Your task to perform on an android device: Open Youtube and go to "Your channel" Image 0: 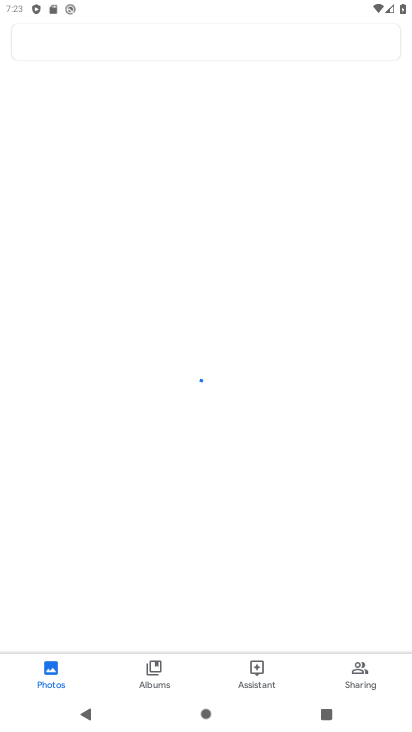
Step 0: press home button
Your task to perform on an android device: Open Youtube and go to "Your channel" Image 1: 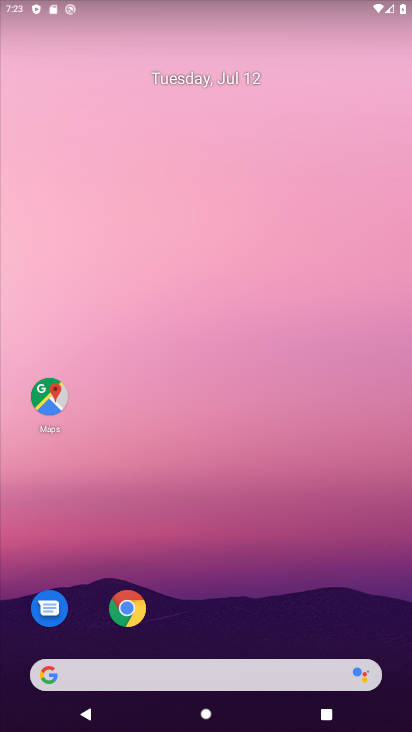
Step 1: drag from (205, 451) to (218, 103)
Your task to perform on an android device: Open Youtube and go to "Your channel" Image 2: 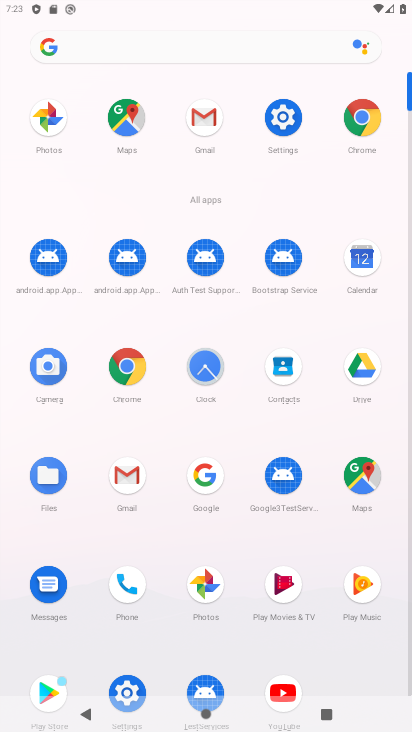
Step 2: click (276, 692)
Your task to perform on an android device: Open Youtube and go to "Your channel" Image 3: 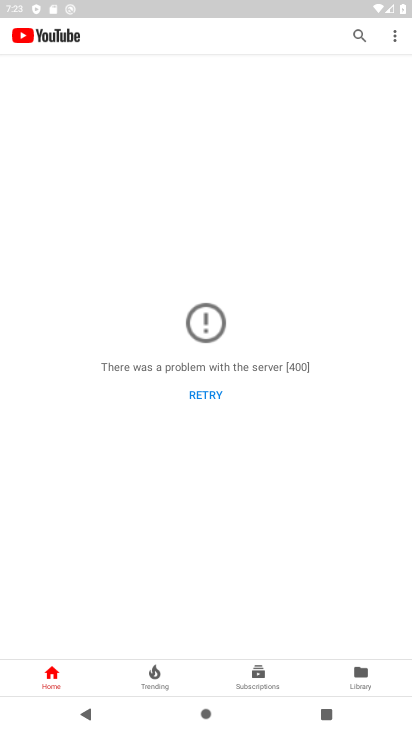
Step 3: click (362, 673)
Your task to perform on an android device: Open Youtube and go to "Your channel" Image 4: 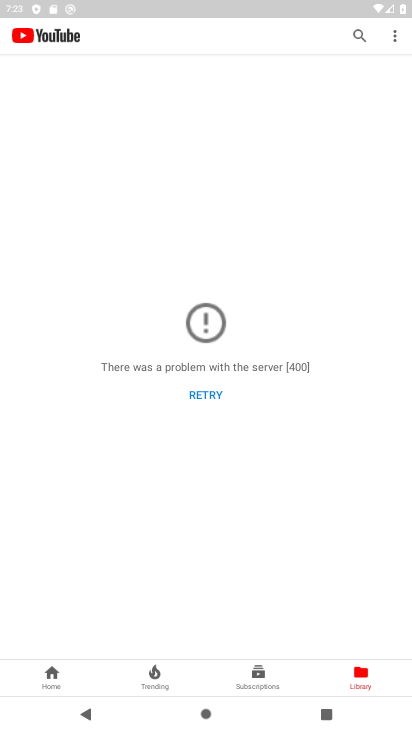
Step 4: task complete